Your task to perform on an android device: uninstall "Adobe Acrobat Reader" Image 0: 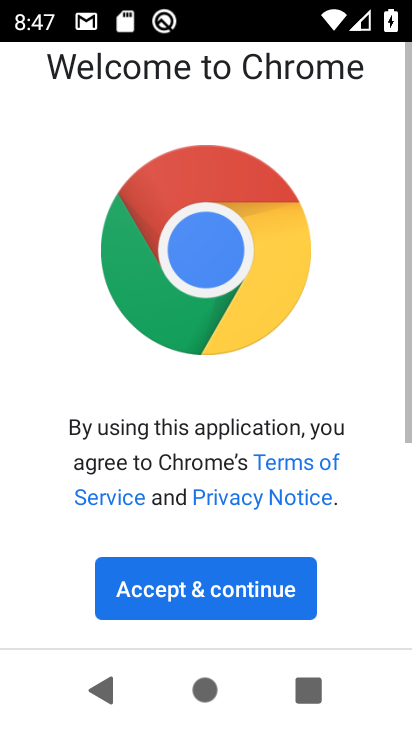
Step 0: press back button
Your task to perform on an android device: uninstall "Adobe Acrobat Reader" Image 1: 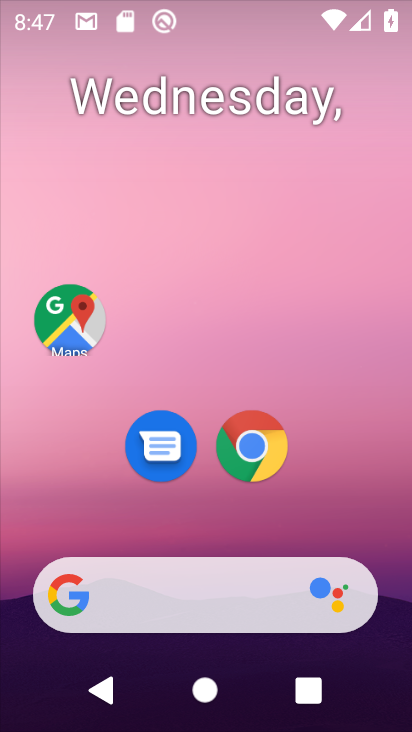
Step 1: drag from (211, 379) to (267, 7)
Your task to perform on an android device: uninstall "Adobe Acrobat Reader" Image 2: 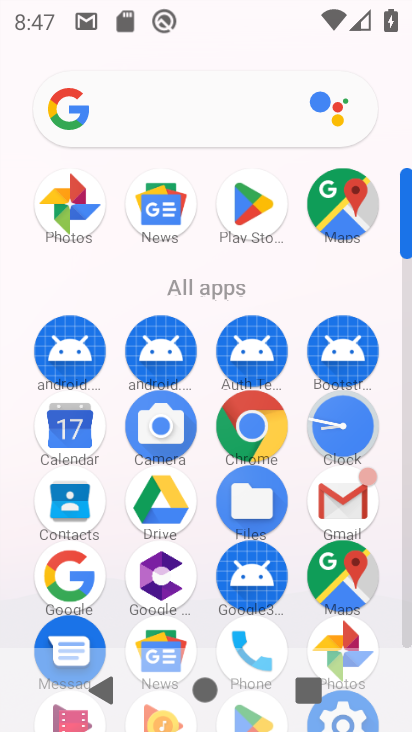
Step 2: drag from (239, 532) to (265, 95)
Your task to perform on an android device: uninstall "Adobe Acrobat Reader" Image 3: 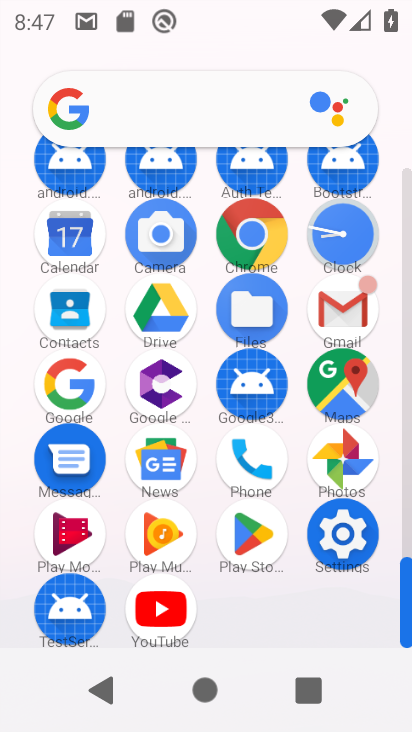
Step 3: click (334, 552)
Your task to perform on an android device: uninstall "Adobe Acrobat Reader" Image 4: 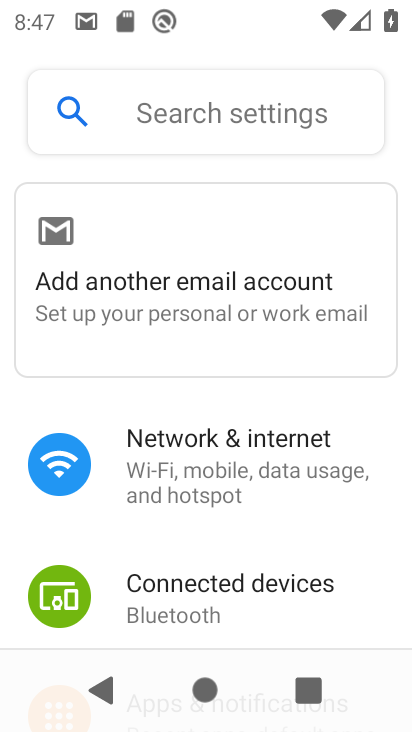
Step 4: drag from (225, 589) to (282, 76)
Your task to perform on an android device: uninstall "Adobe Acrobat Reader" Image 5: 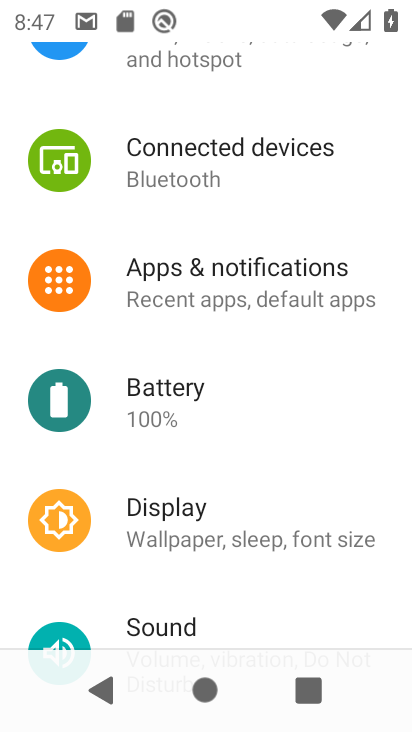
Step 5: click (217, 521)
Your task to perform on an android device: uninstall "Adobe Acrobat Reader" Image 6: 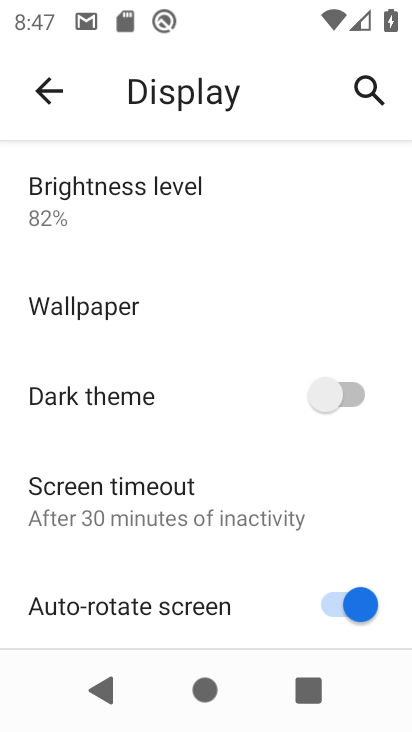
Step 6: drag from (152, 562) to (249, 86)
Your task to perform on an android device: uninstall "Adobe Acrobat Reader" Image 7: 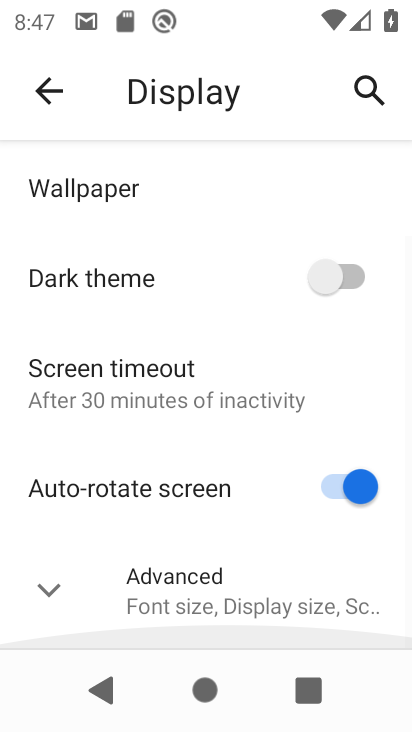
Step 7: click (219, 632)
Your task to perform on an android device: uninstall "Adobe Acrobat Reader" Image 8: 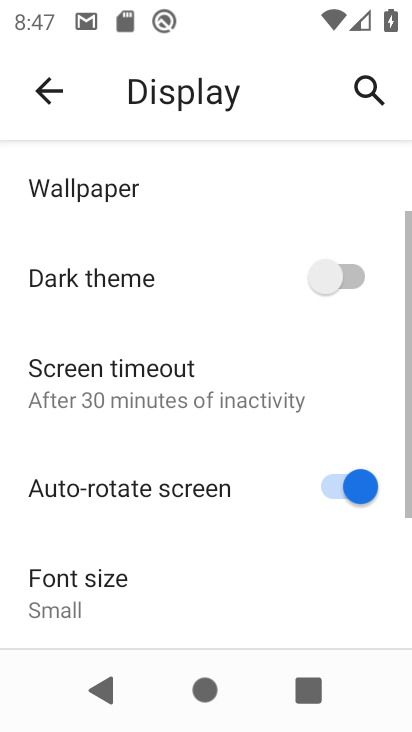
Step 8: drag from (201, 593) to (252, 263)
Your task to perform on an android device: uninstall "Adobe Acrobat Reader" Image 9: 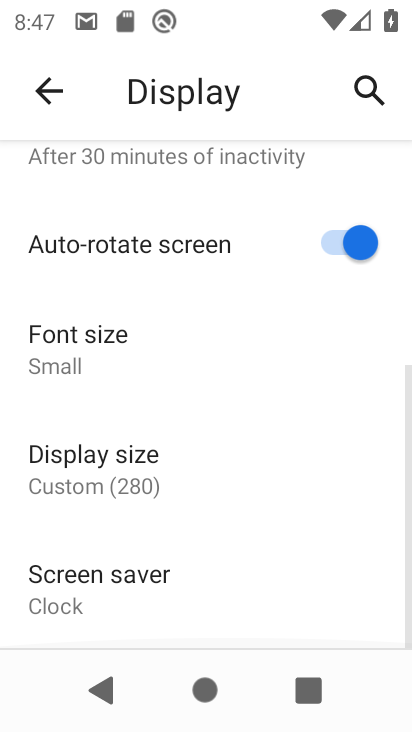
Step 9: click (148, 437)
Your task to perform on an android device: uninstall "Adobe Acrobat Reader" Image 10: 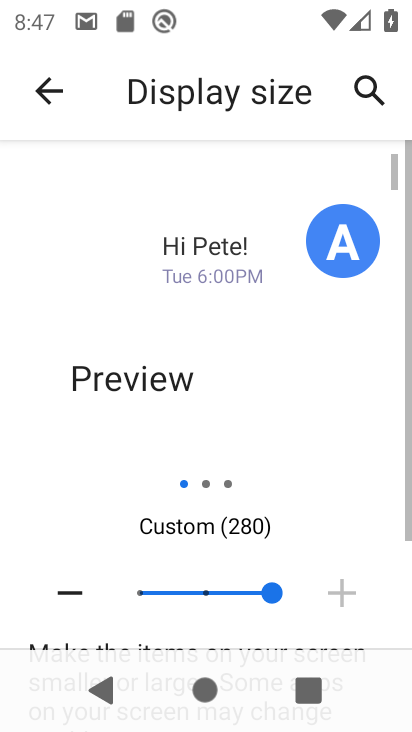
Step 10: click (208, 596)
Your task to perform on an android device: uninstall "Adobe Acrobat Reader" Image 11: 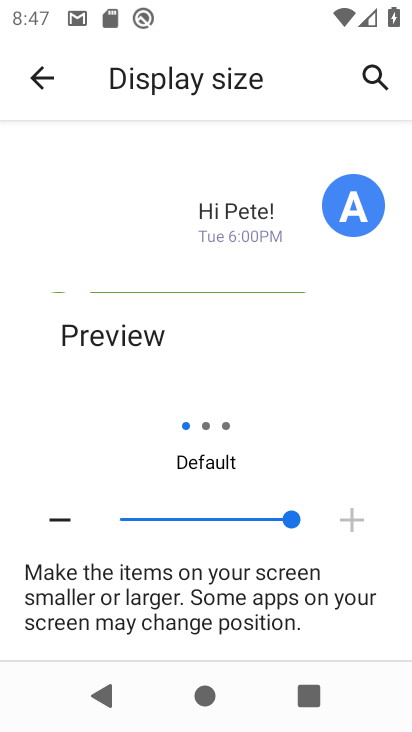
Step 11: press back button
Your task to perform on an android device: uninstall "Adobe Acrobat Reader" Image 12: 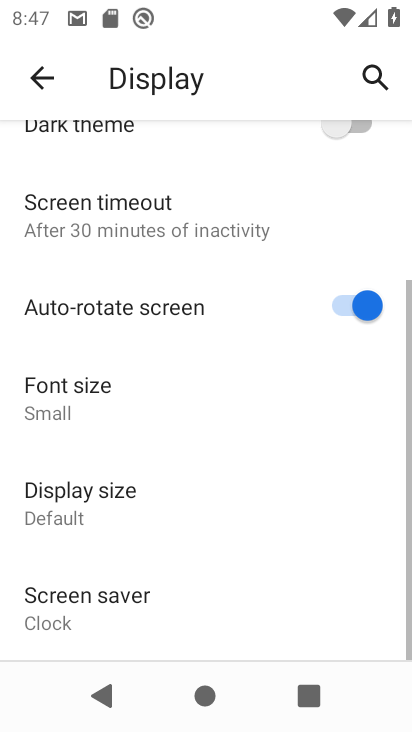
Step 12: press back button
Your task to perform on an android device: uninstall "Adobe Acrobat Reader" Image 13: 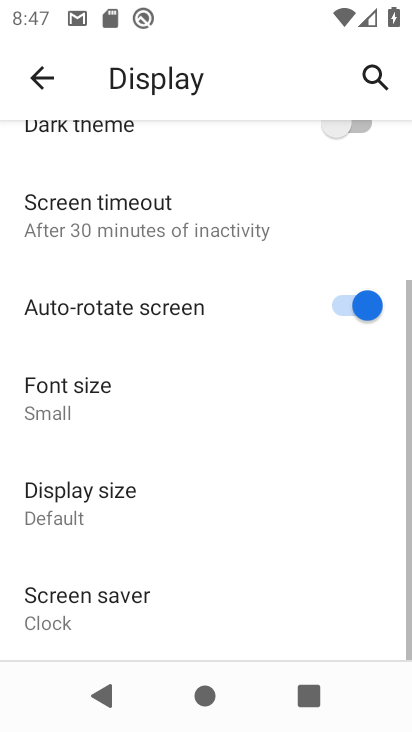
Step 13: press back button
Your task to perform on an android device: uninstall "Adobe Acrobat Reader" Image 14: 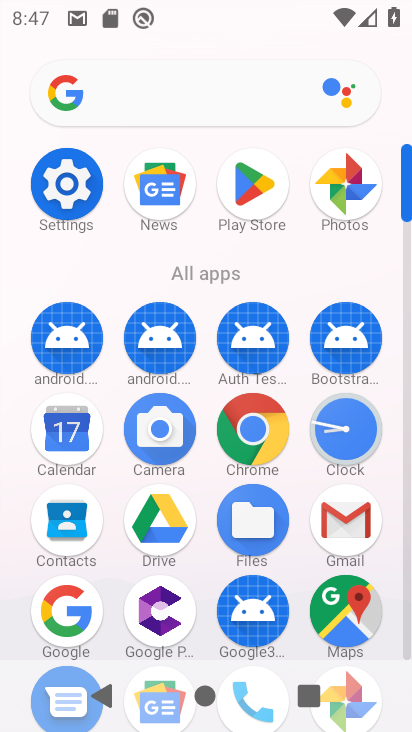
Step 14: press back button
Your task to perform on an android device: uninstall "Adobe Acrobat Reader" Image 15: 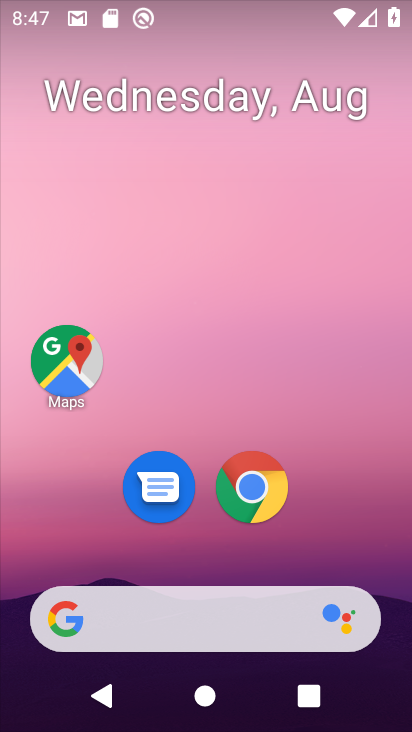
Step 15: drag from (217, 588) to (281, 10)
Your task to perform on an android device: uninstall "Adobe Acrobat Reader" Image 16: 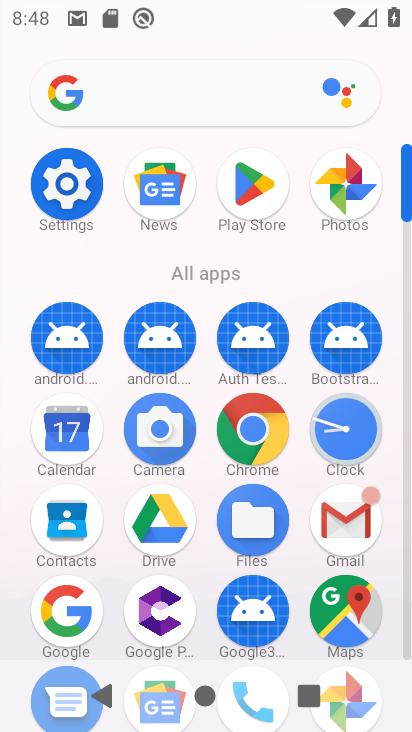
Step 16: click (251, 181)
Your task to perform on an android device: uninstall "Adobe Acrobat Reader" Image 17: 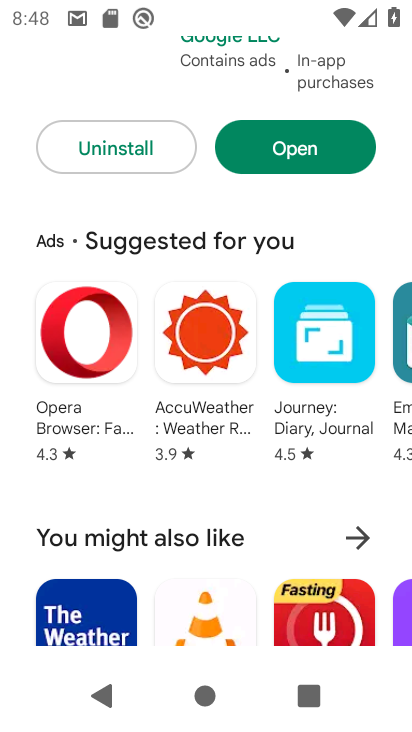
Step 17: drag from (243, 193) to (221, 673)
Your task to perform on an android device: uninstall "Adobe Acrobat Reader" Image 18: 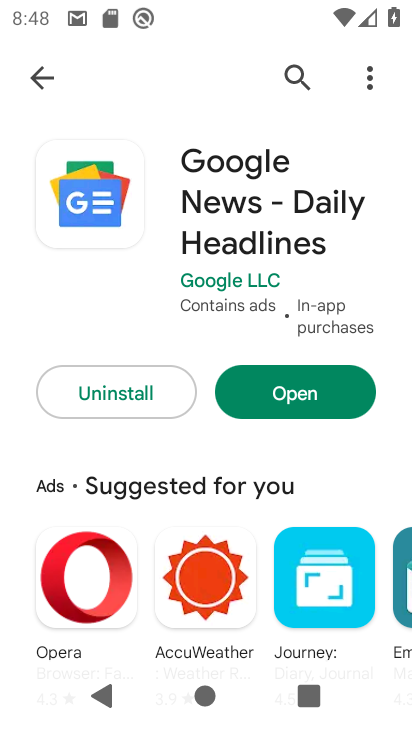
Step 18: click (286, 66)
Your task to perform on an android device: uninstall "Adobe Acrobat Reader" Image 19: 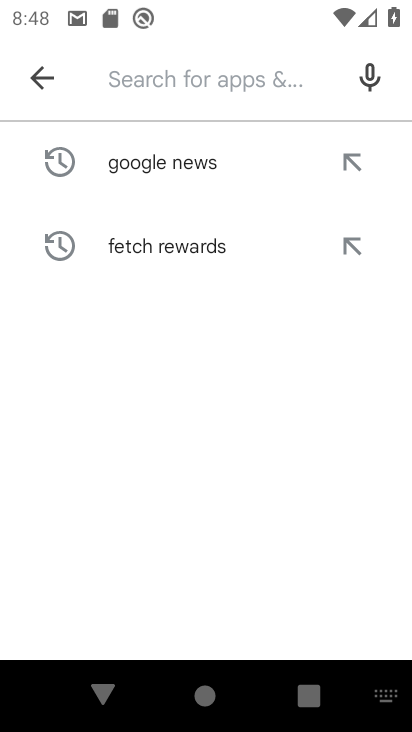
Step 19: click (185, 86)
Your task to perform on an android device: uninstall "Adobe Acrobat Reader" Image 20: 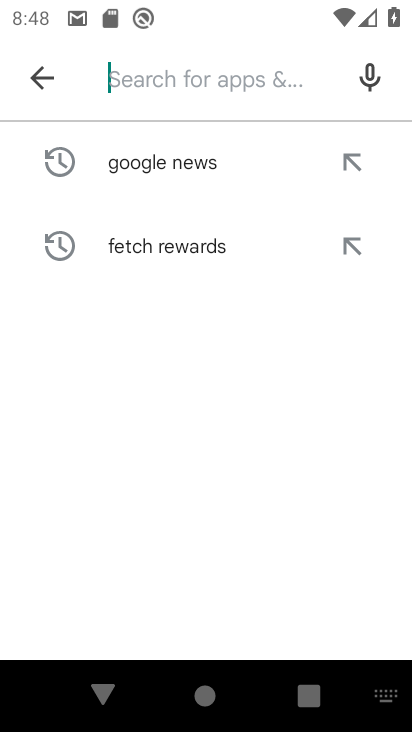
Step 20: type "Adobe Acrobat Reader"
Your task to perform on an android device: uninstall "Adobe Acrobat Reader" Image 21: 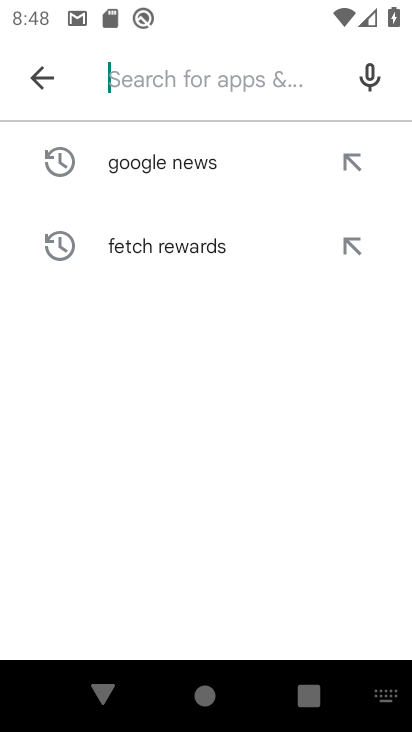
Step 21: click (288, 368)
Your task to perform on an android device: uninstall "Adobe Acrobat Reader" Image 22: 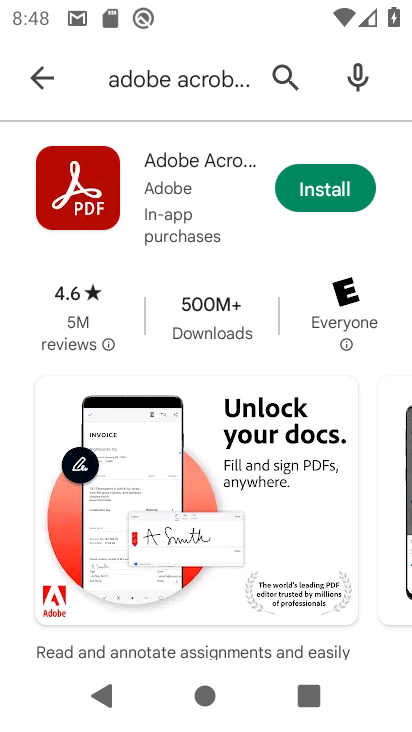
Step 22: task complete